Your task to perform on an android device: delete browsing data in the chrome app Image 0: 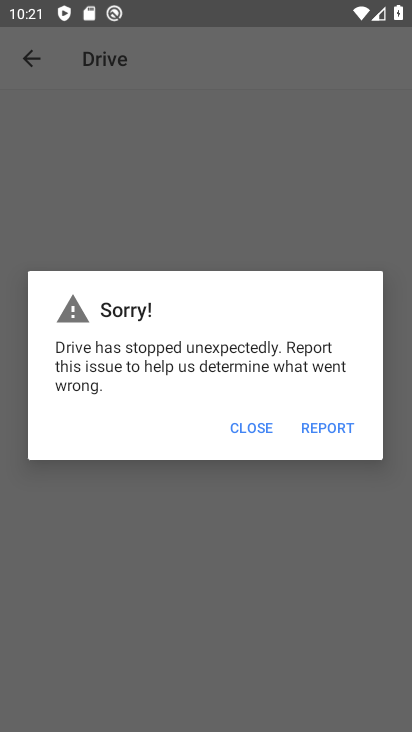
Step 0: press home button
Your task to perform on an android device: delete browsing data in the chrome app Image 1: 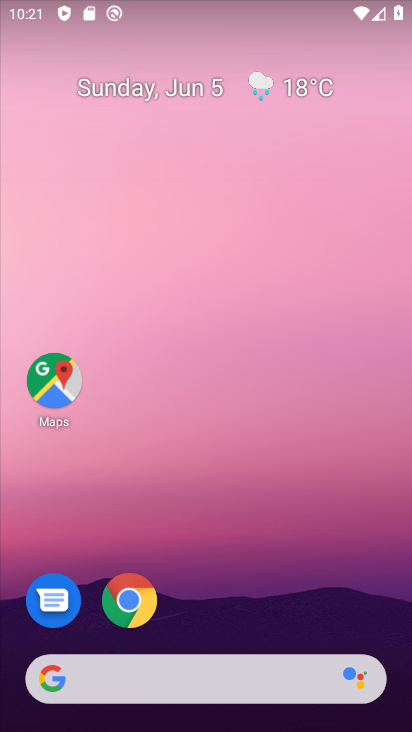
Step 1: click (136, 608)
Your task to perform on an android device: delete browsing data in the chrome app Image 2: 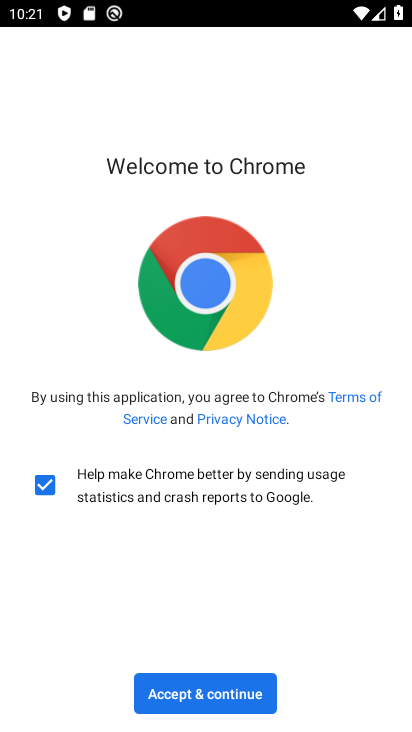
Step 2: click (225, 680)
Your task to perform on an android device: delete browsing data in the chrome app Image 3: 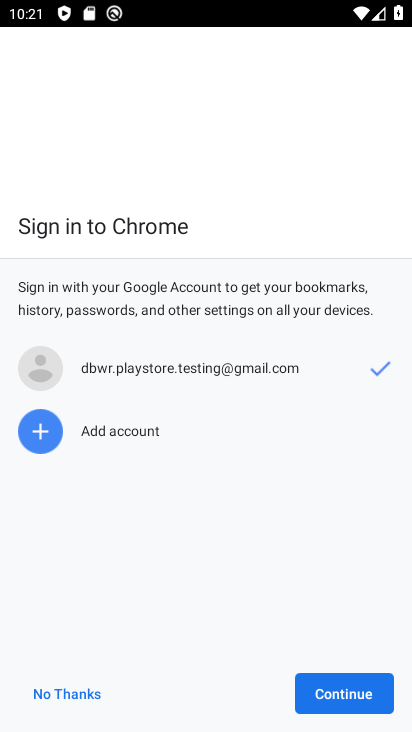
Step 3: click (317, 684)
Your task to perform on an android device: delete browsing data in the chrome app Image 4: 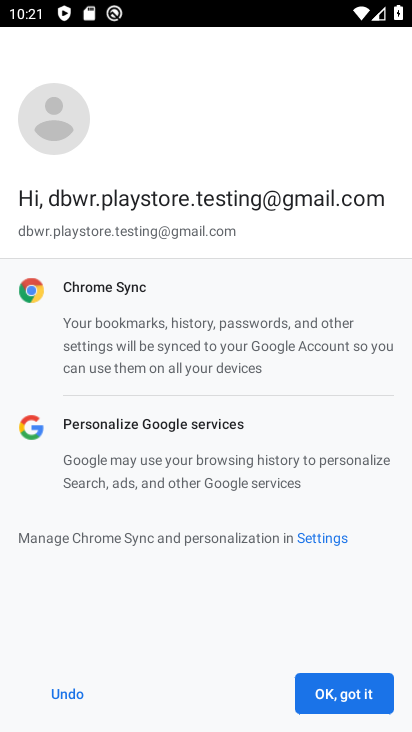
Step 4: click (310, 684)
Your task to perform on an android device: delete browsing data in the chrome app Image 5: 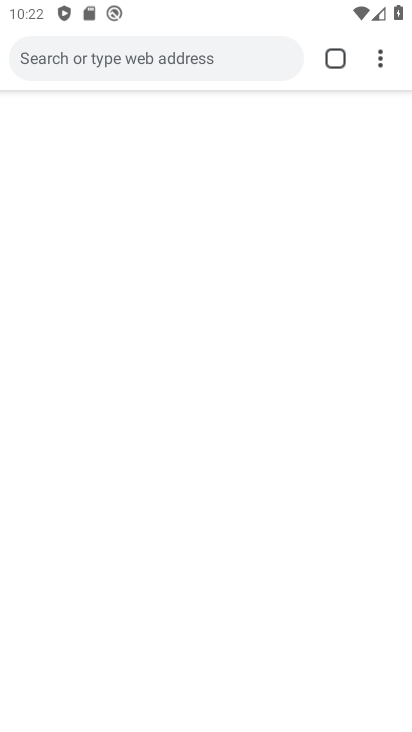
Step 5: click (384, 62)
Your task to perform on an android device: delete browsing data in the chrome app Image 6: 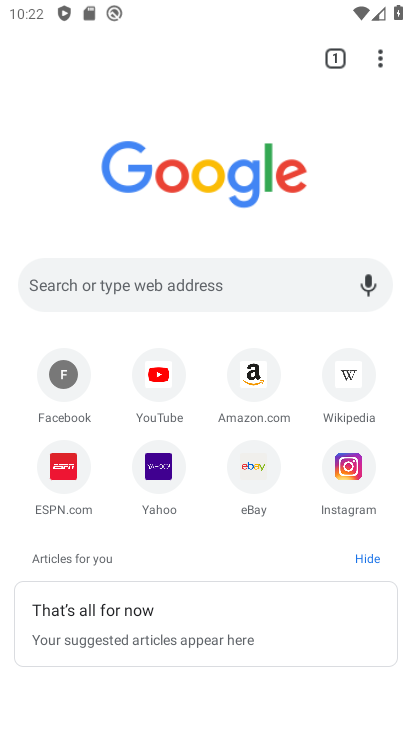
Step 6: drag from (376, 62) to (190, 229)
Your task to perform on an android device: delete browsing data in the chrome app Image 7: 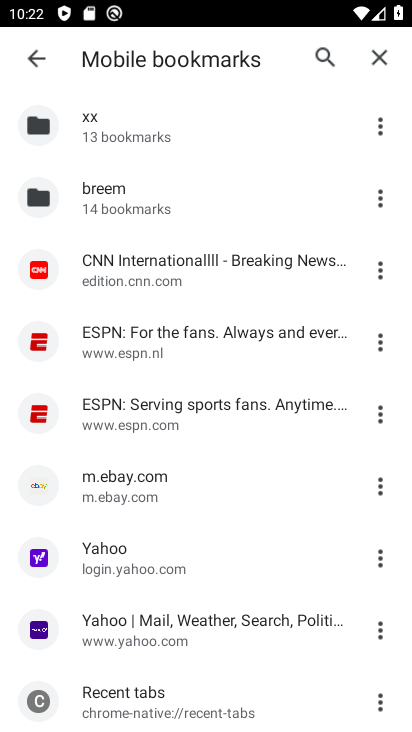
Step 7: press back button
Your task to perform on an android device: delete browsing data in the chrome app Image 8: 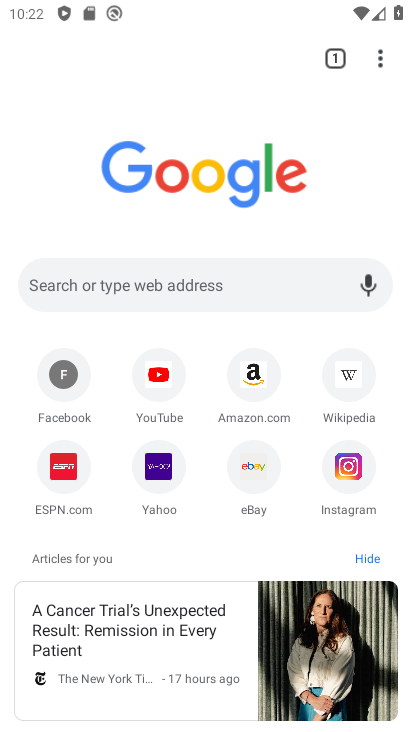
Step 8: click (380, 62)
Your task to perform on an android device: delete browsing data in the chrome app Image 9: 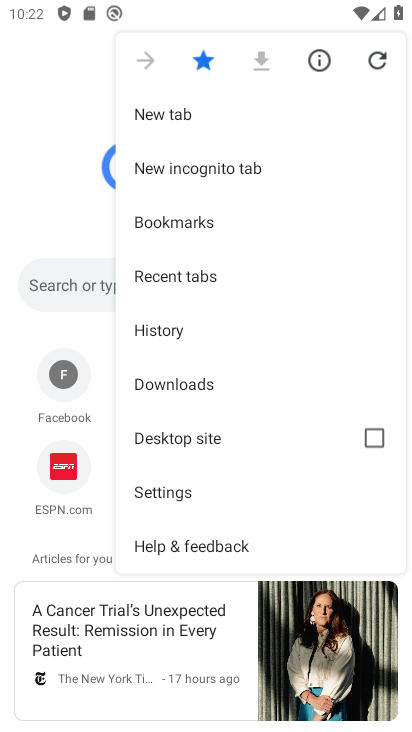
Step 9: click (181, 322)
Your task to perform on an android device: delete browsing data in the chrome app Image 10: 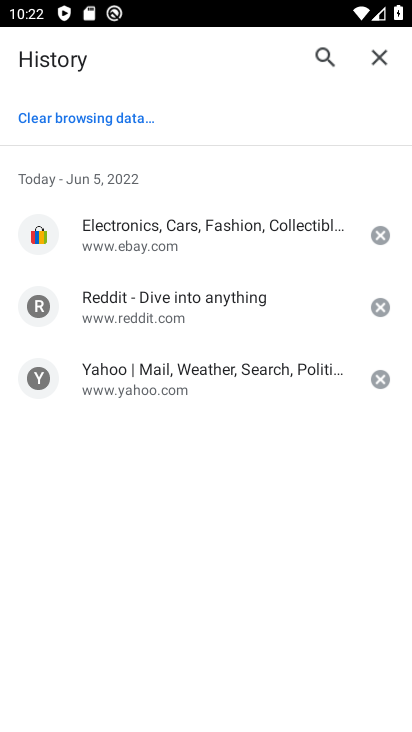
Step 10: click (132, 126)
Your task to perform on an android device: delete browsing data in the chrome app Image 11: 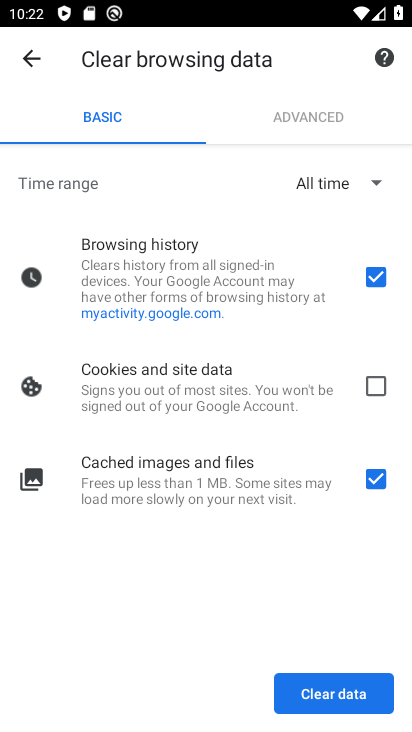
Step 11: click (371, 386)
Your task to perform on an android device: delete browsing data in the chrome app Image 12: 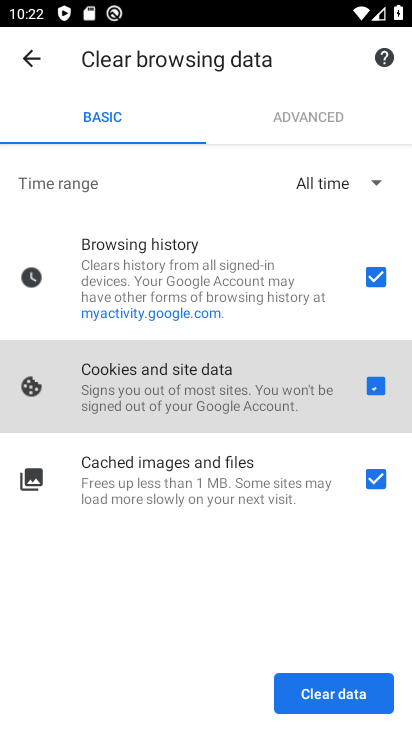
Step 12: click (312, 680)
Your task to perform on an android device: delete browsing data in the chrome app Image 13: 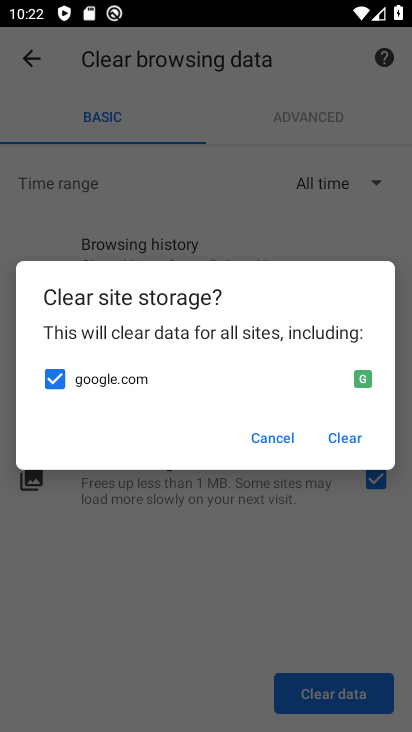
Step 13: click (329, 432)
Your task to perform on an android device: delete browsing data in the chrome app Image 14: 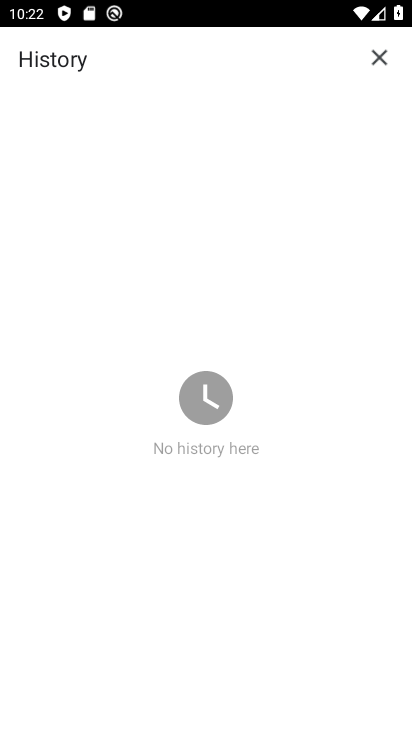
Step 14: task complete